Your task to perform on an android device: Open Chrome and go to settings Image 0: 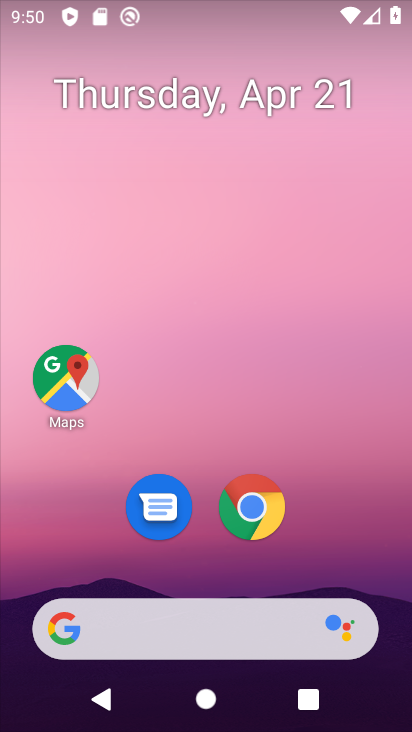
Step 0: click (253, 507)
Your task to perform on an android device: Open Chrome and go to settings Image 1: 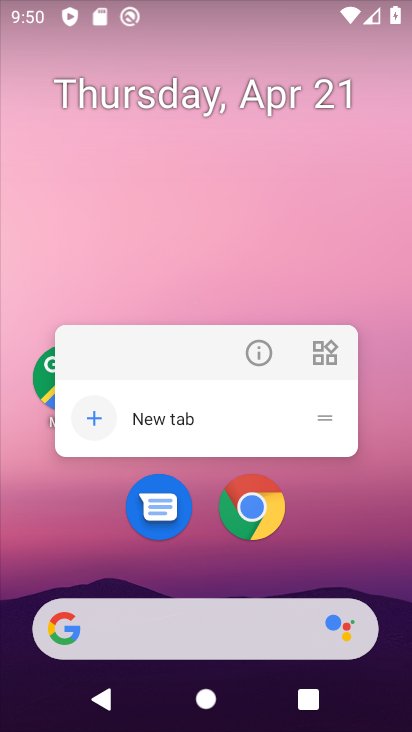
Step 1: click (313, 511)
Your task to perform on an android device: Open Chrome and go to settings Image 2: 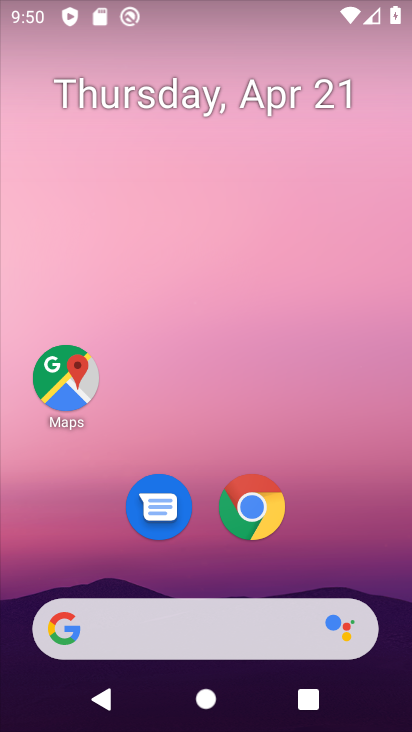
Step 2: click (253, 507)
Your task to perform on an android device: Open Chrome and go to settings Image 3: 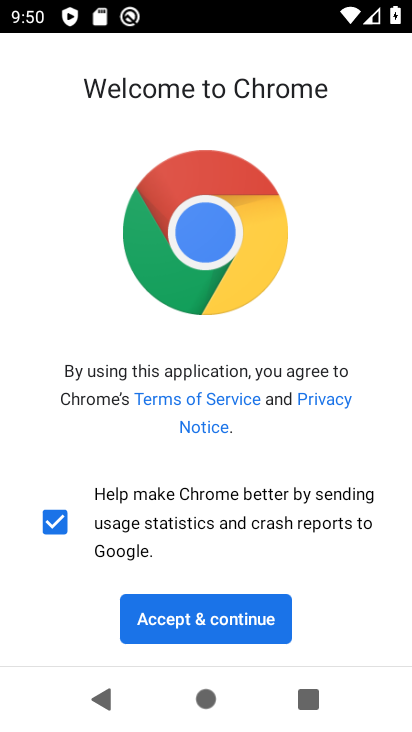
Step 3: click (206, 625)
Your task to perform on an android device: Open Chrome and go to settings Image 4: 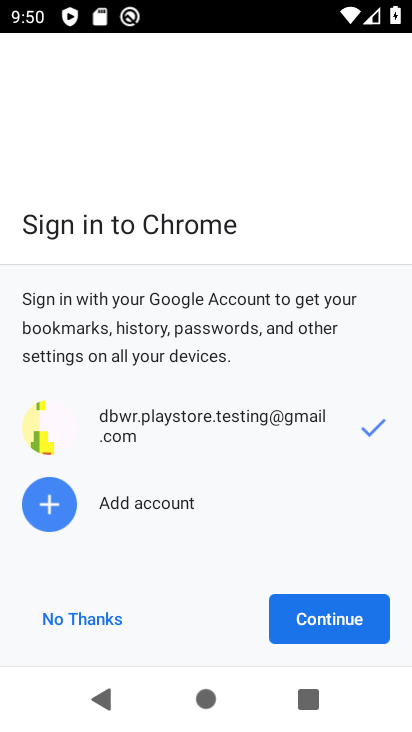
Step 4: click (328, 623)
Your task to perform on an android device: Open Chrome and go to settings Image 5: 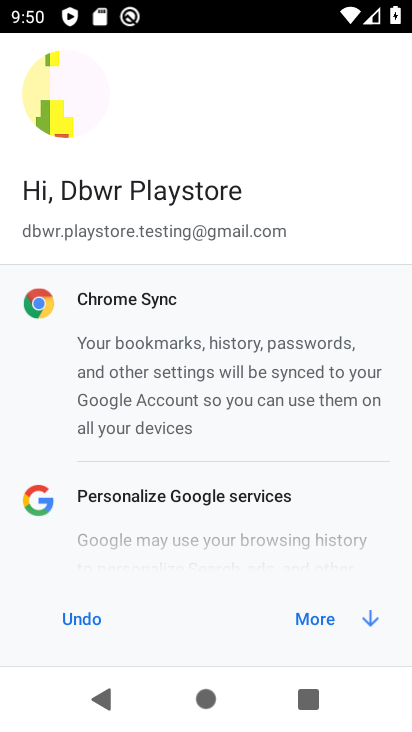
Step 5: click (328, 623)
Your task to perform on an android device: Open Chrome and go to settings Image 6: 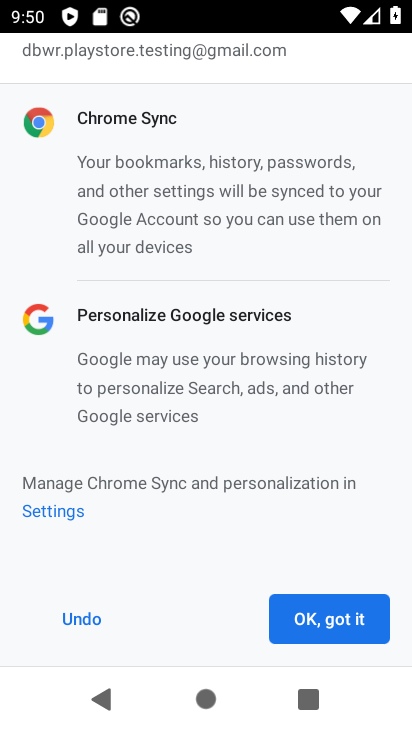
Step 6: click (328, 623)
Your task to perform on an android device: Open Chrome and go to settings Image 7: 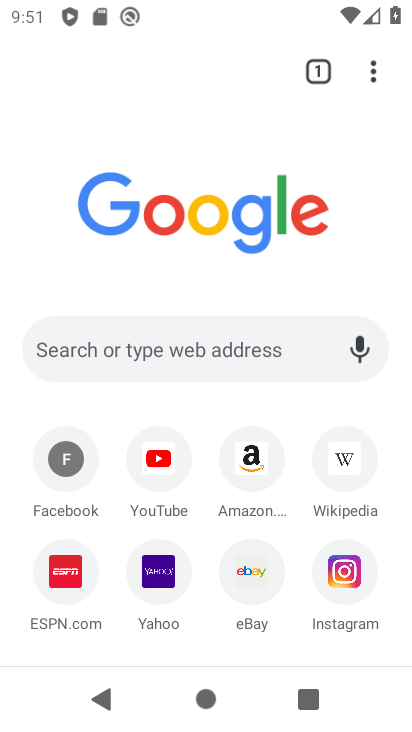
Step 7: click (370, 69)
Your task to perform on an android device: Open Chrome and go to settings Image 8: 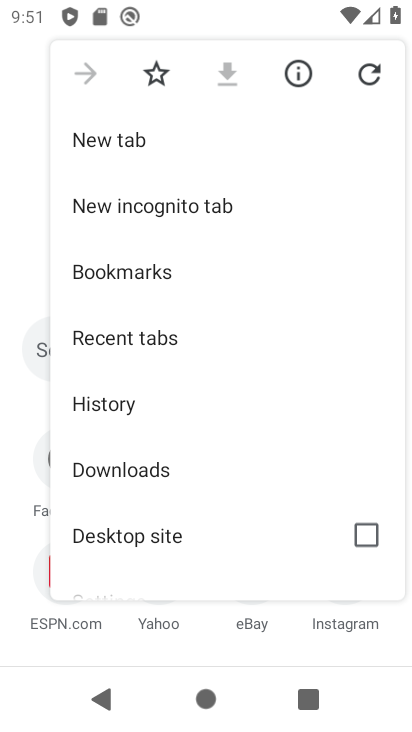
Step 8: drag from (259, 464) to (237, 58)
Your task to perform on an android device: Open Chrome and go to settings Image 9: 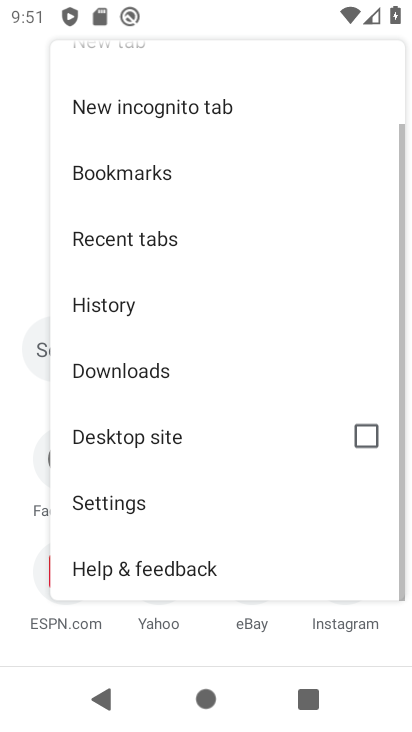
Step 9: click (102, 492)
Your task to perform on an android device: Open Chrome and go to settings Image 10: 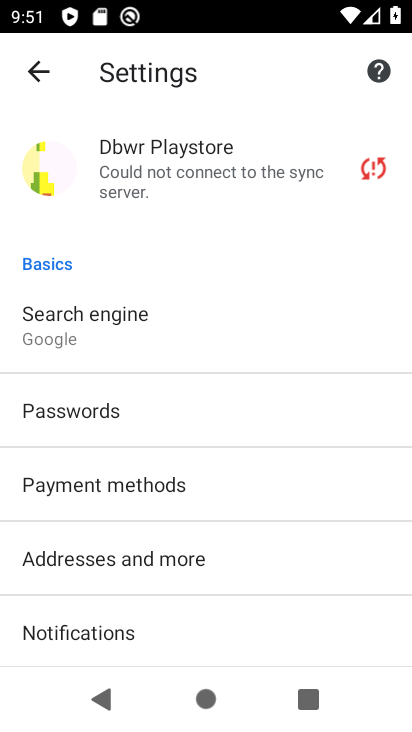
Step 10: task complete